Your task to perform on an android device: Set the phone to "Do not disturb". Image 0: 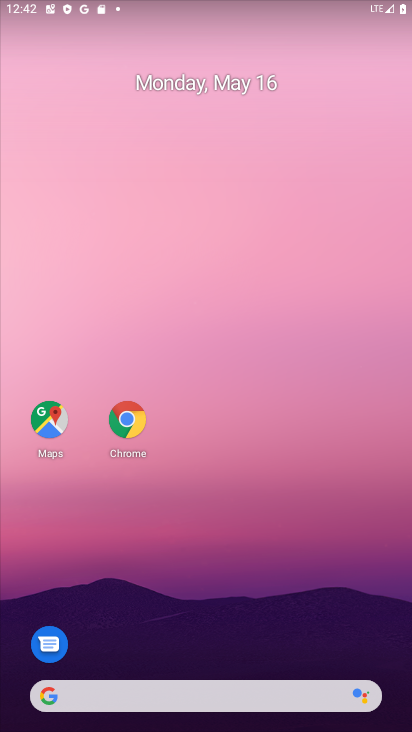
Step 0: drag from (188, 419) to (164, 139)
Your task to perform on an android device: Set the phone to "Do not disturb". Image 1: 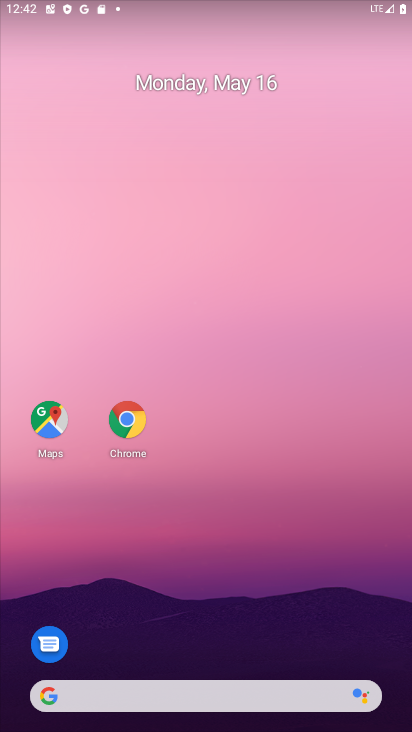
Step 1: drag from (247, 632) to (265, 92)
Your task to perform on an android device: Set the phone to "Do not disturb". Image 2: 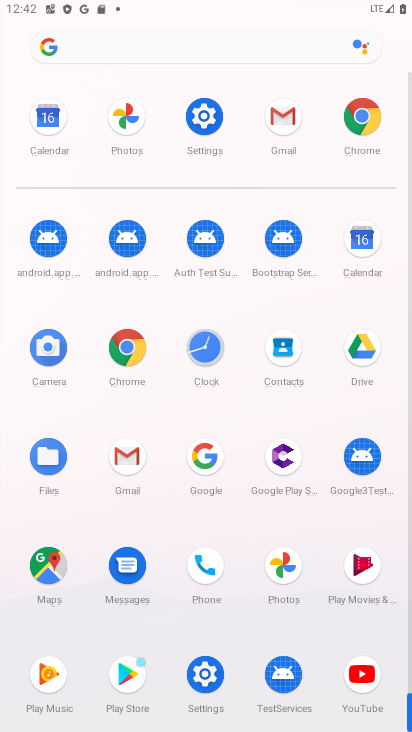
Step 2: click (202, 114)
Your task to perform on an android device: Set the phone to "Do not disturb". Image 3: 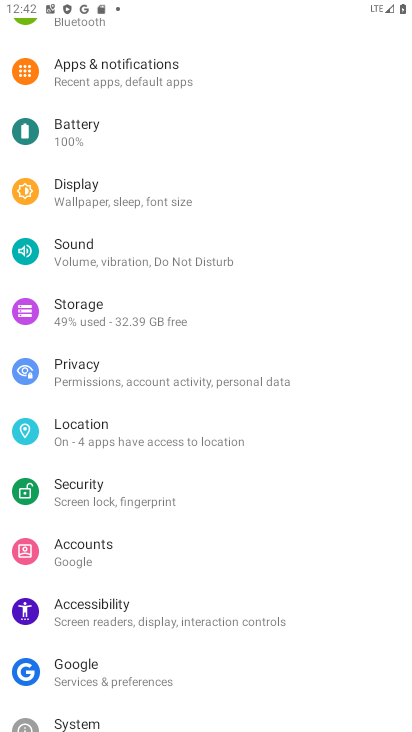
Step 3: click (142, 83)
Your task to perform on an android device: Set the phone to "Do not disturb". Image 4: 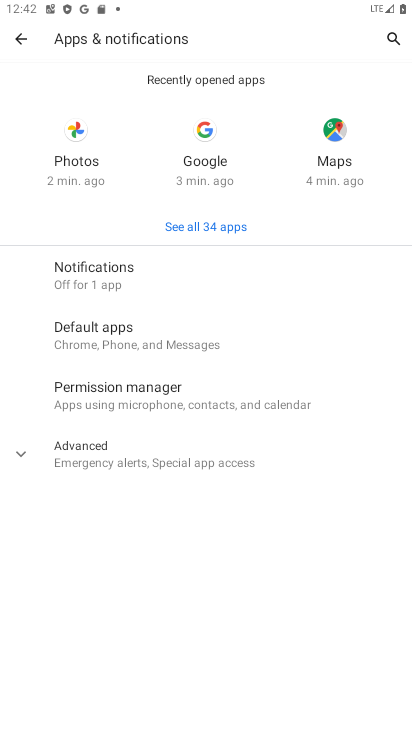
Step 4: click (101, 264)
Your task to perform on an android device: Set the phone to "Do not disturb". Image 5: 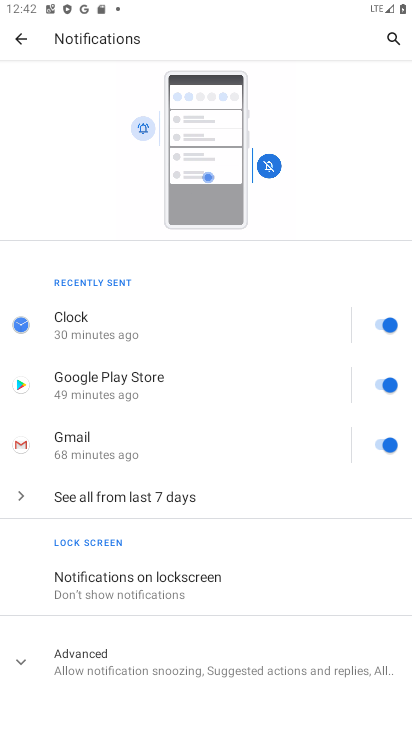
Step 5: drag from (223, 582) to (202, 0)
Your task to perform on an android device: Set the phone to "Do not disturb". Image 6: 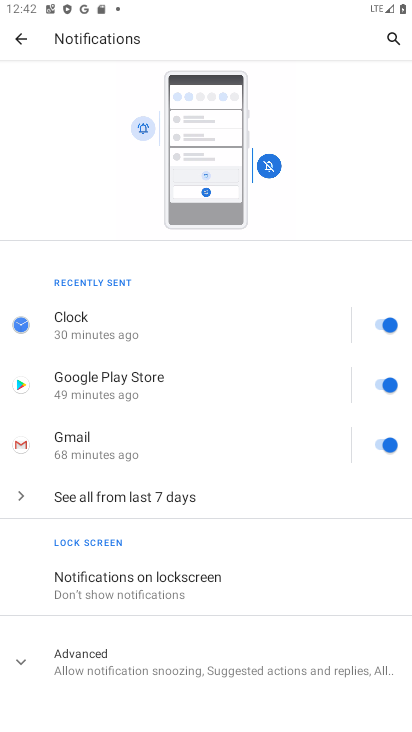
Step 6: click (125, 674)
Your task to perform on an android device: Set the phone to "Do not disturb". Image 7: 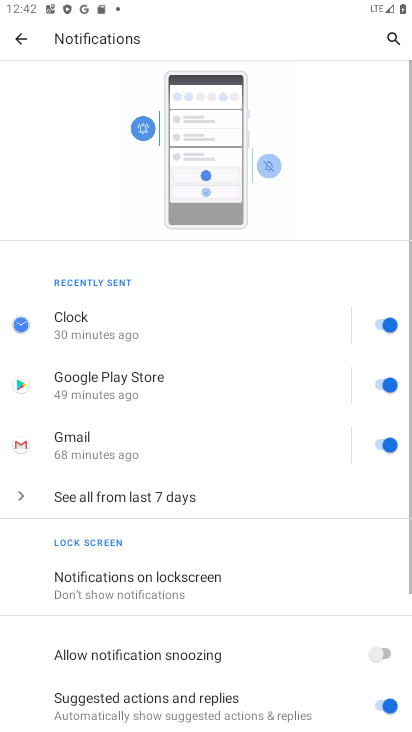
Step 7: drag from (206, 640) to (148, 5)
Your task to perform on an android device: Set the phone to "Do not disturb". Image 8: 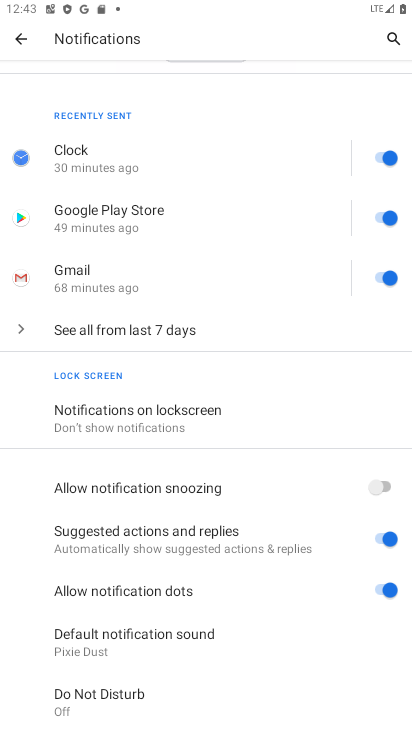
Step 8: click (112, 683)
Your task to perform on an android device: Set the phone to "Do not disturb". Image 9: 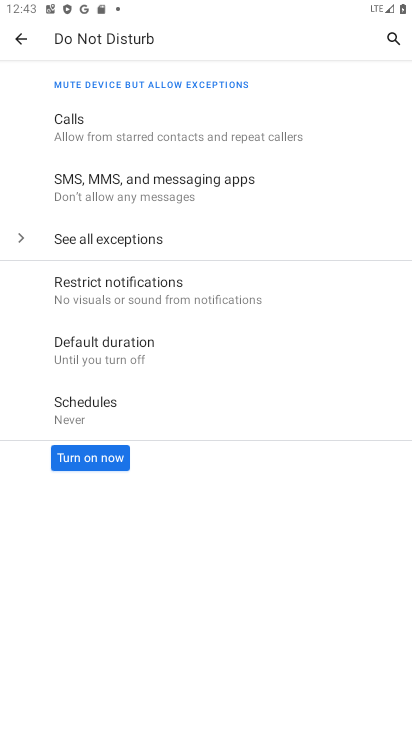
Step 9: click (78, 465)
Your task to perform on an android device: Set the phone to "Do not disturb". Image 10: 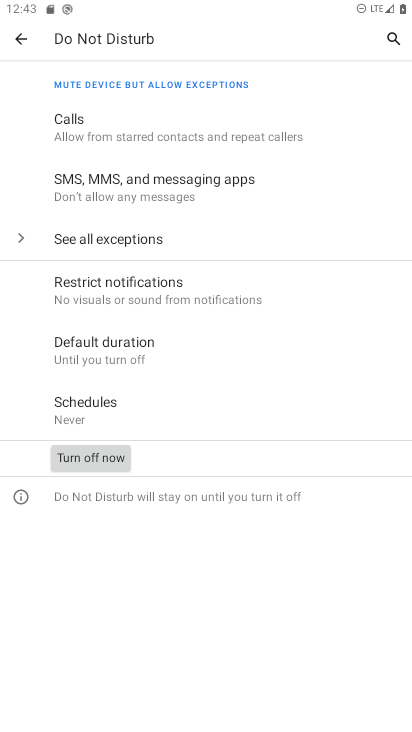
Step 10: task complete